Your task to perform on an android device: Open calendar and show me the first week of next month Image 0: 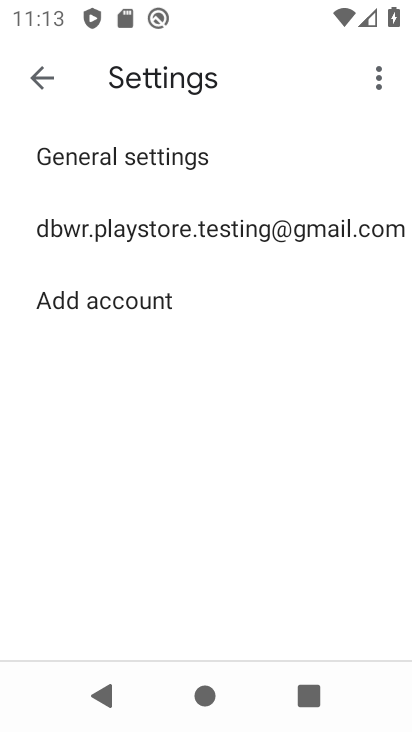
Step 0: press home button
Your task to perform on an android device: Open calendar and show me the first week of next month Image 1: 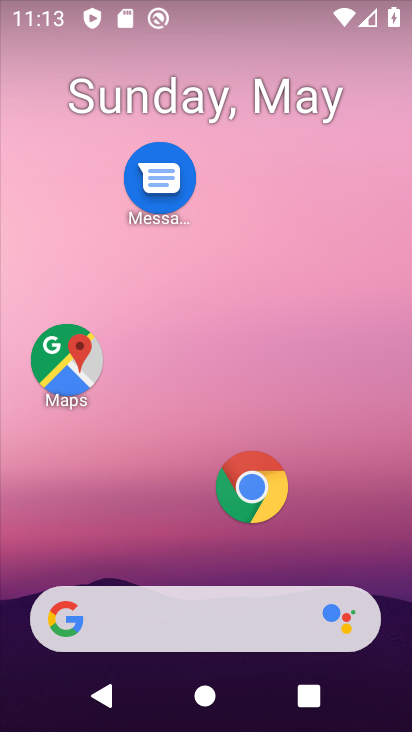
Step 1: drag from (175, 530) to (242, 1)
Your task to perform on an android device: Open calendar and show me the first week of next month Image 2: 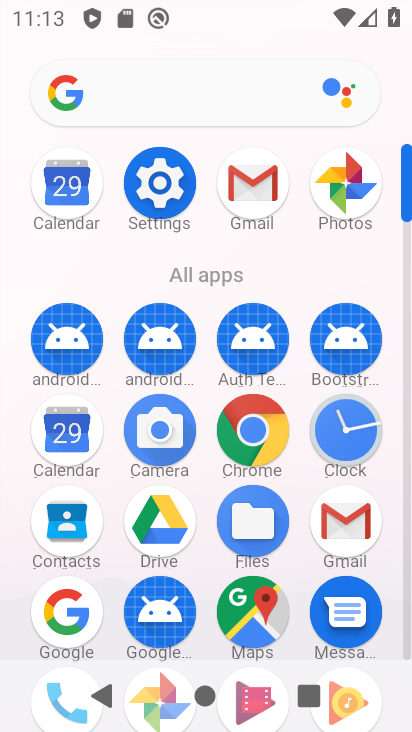
Step 2: click (67, 446)
Your task to perform on an android device: Open calendar and show me the first week of next month Image 3: 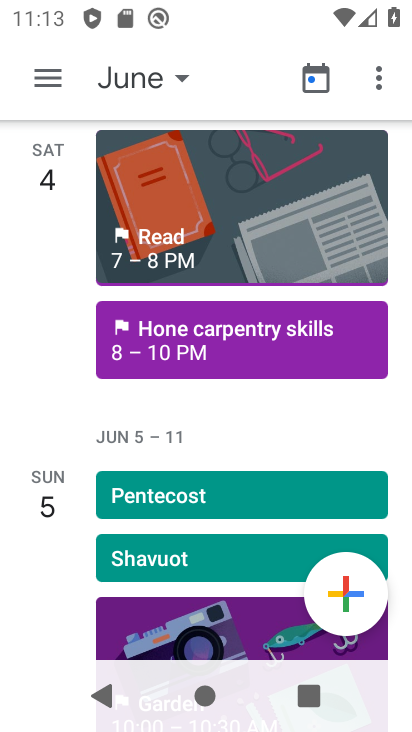
Step 3: click (116, 67)
Your task to perform on an android device: Open calendar and show me the first week of next month Image 4: 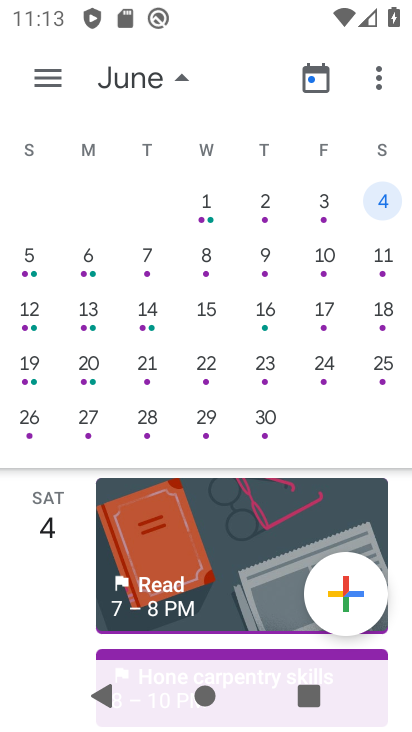
Step 4: drag from (75, 330) to (135, 384)
Your task to perform on an android device: Open calendar and show me the first week of next month Image 5: 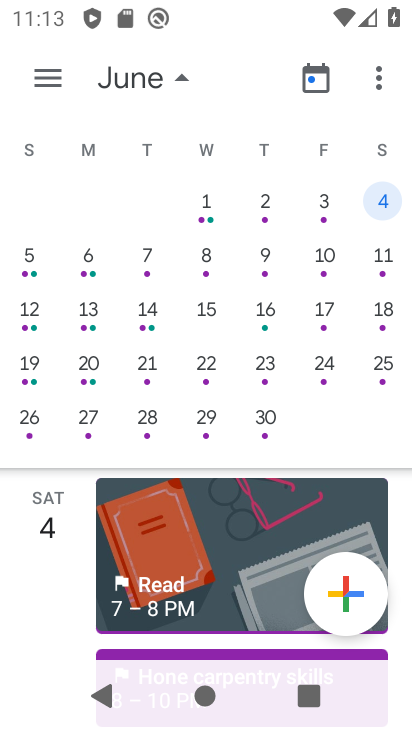
Step 5: click (202, 215)
Your task to perform on an android device: Open calendar and show me the first week of next month Image 6: 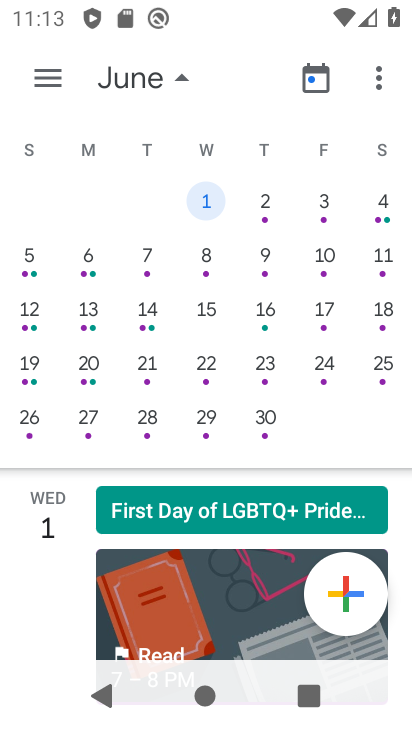
Step 6: task complete